Your task to perform on an android device: open chrome and create a bookmark for the current page Image 0: 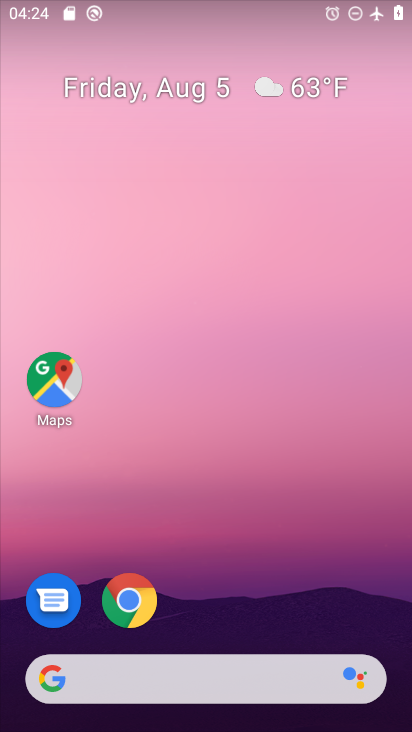
Step 0: click (129, 599)
Your task to perform on an android device: open chrome and create a bookmark for the current page Image 1: 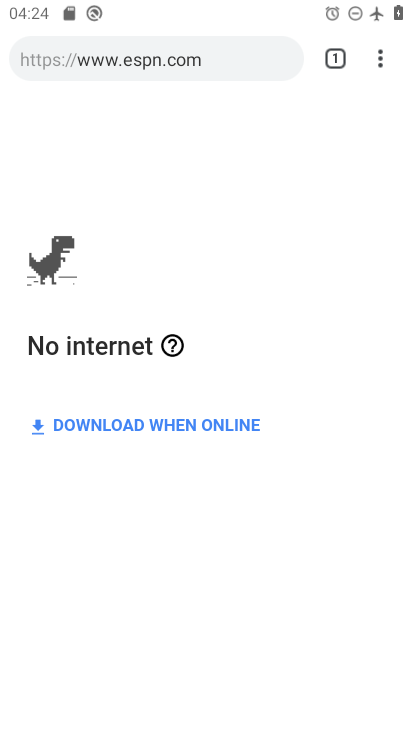
Step 1: click (381, 54)
Your task to perform on an android device: open chrome and create a bookmark for the current page Image 2: 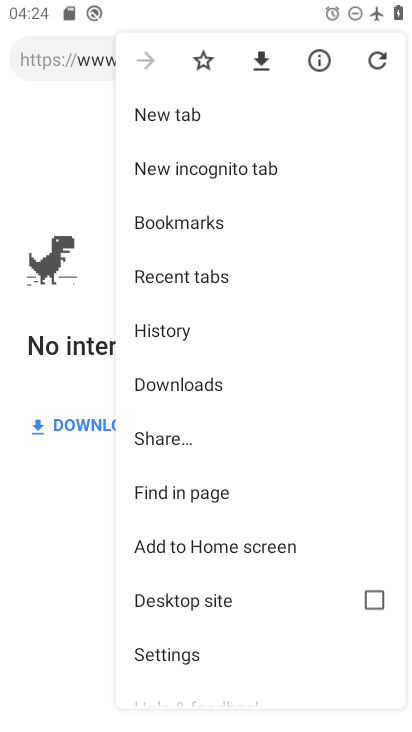
Step 2: click (202, 60)
Your task to perform on an android device: open chrome and create a bookmark for the current page Image 3: 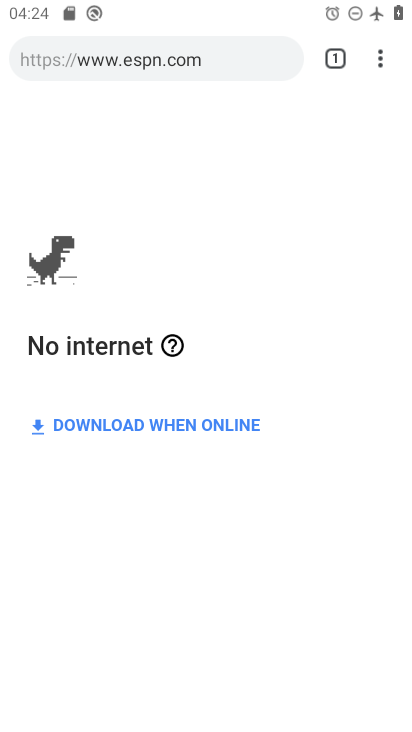
Step 3: task complete